Your task to perform on an android device: check battery use Image 0: 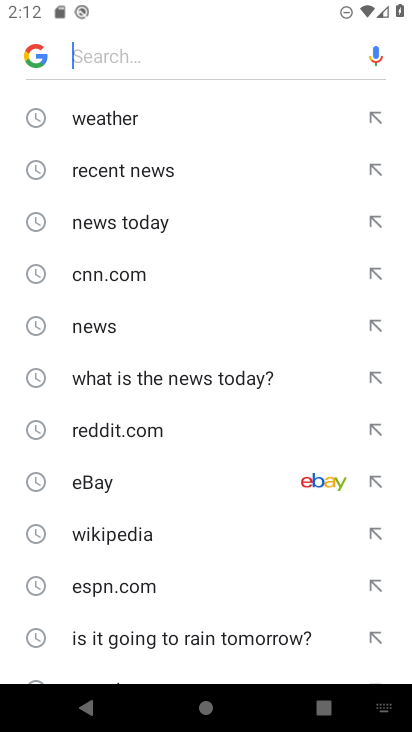
Step 0: press home button
Your task to perform on an android device: check battery use Image 1: 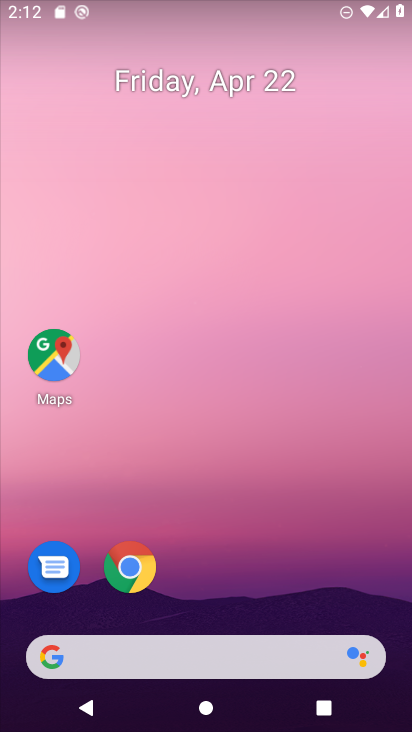
Step 1: drag from (204, 387) to (189, 75)
Your task to perform on an android device: check battery use Image 2: 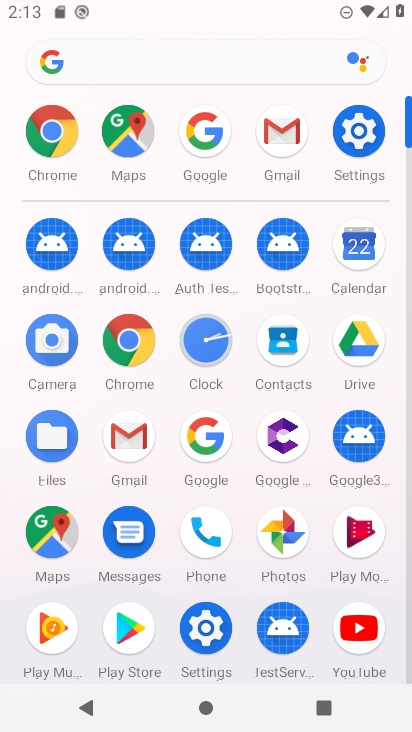
Step 2: click (363, 143)
Your task to perform on an android device: check battery use Image 3: 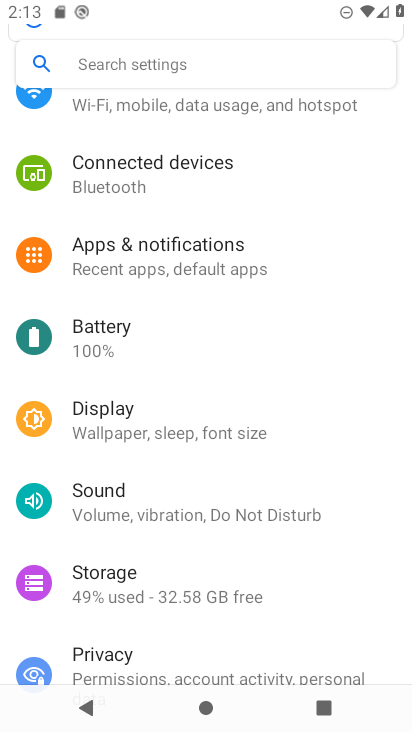
Step 3: click (131, 343)
Your task to perform on an android device: check battery use Image 4: 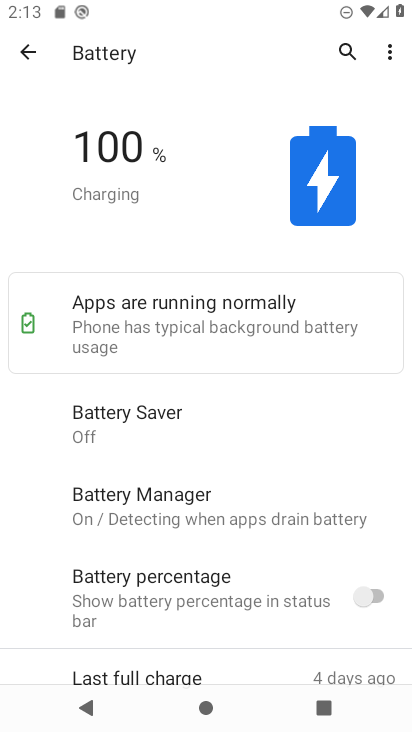
Step 4: click (388, 46)
Your task to perform on an android device: check battery use Image 5: 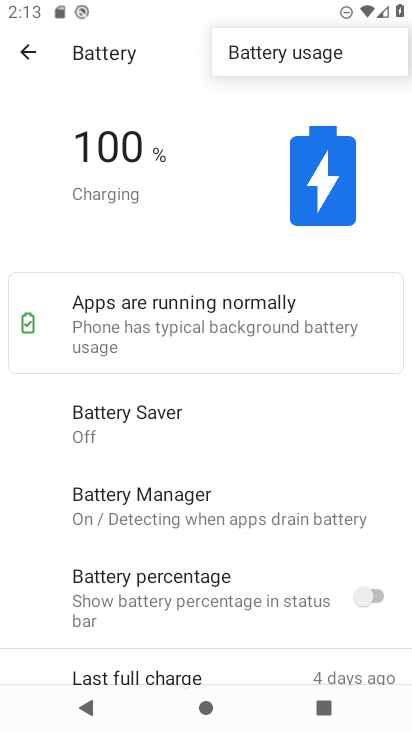
Step 5: click (332, 54)
Your task to perform on an android device: check battery use Image 6: 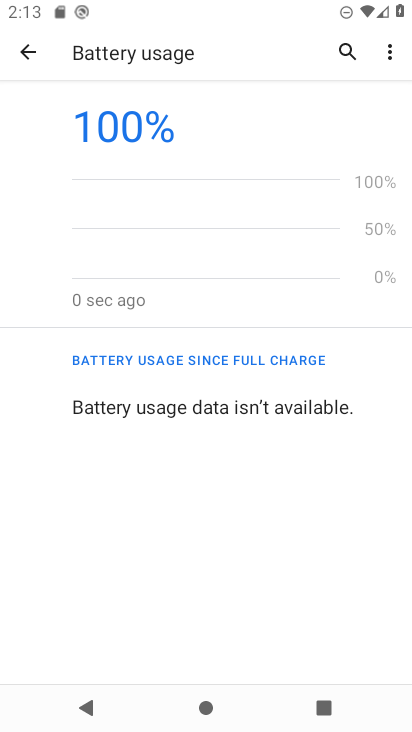
Step 6: task complete